Your task to perform on an android device: turn off airplane mode Image 0: 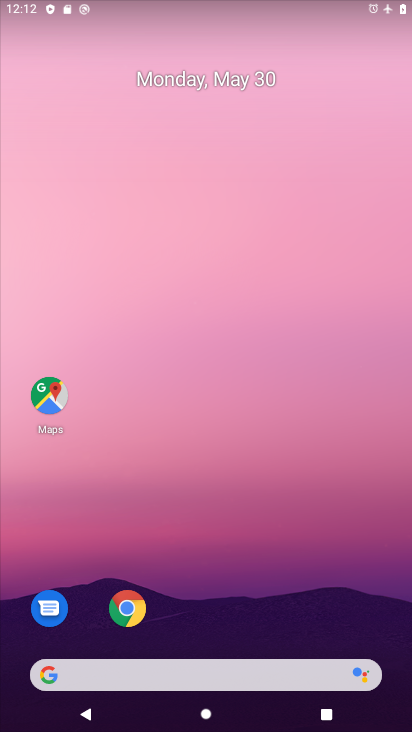
Step 0: drag from (187, 655) to (226, 2)
Your task to perform on an android device: turn off airplane mode Image 1: 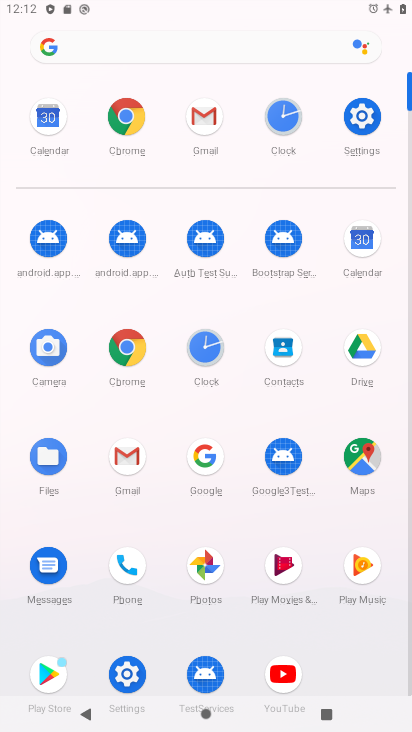
Step 1: click (124, 663)
Your task to perform on an android device: turn off airplane mode Image 2: 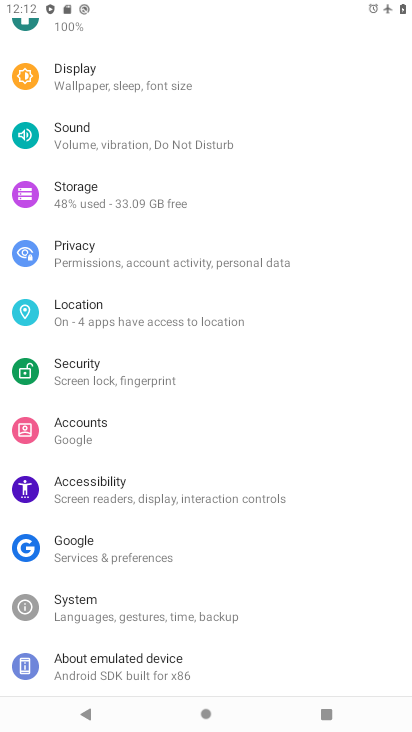
Step 2: drag from (51, 126) to (53, 536)
Your task to perform on an android device: turn off airplane mode Image 3: 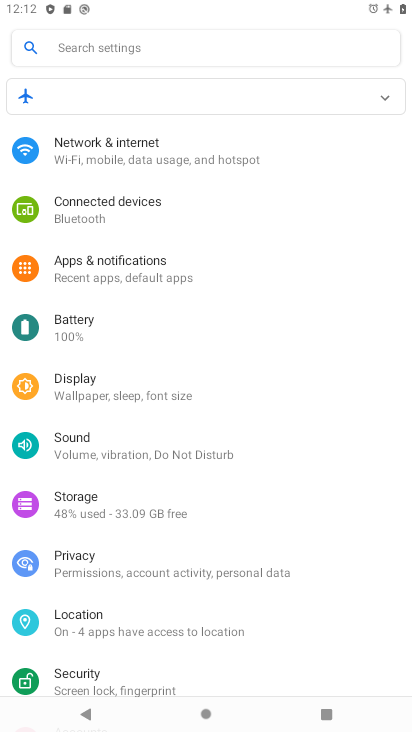
Step 3: click (146, 156)
Your task to perform on an android device: turn off airplane mode Image 4: 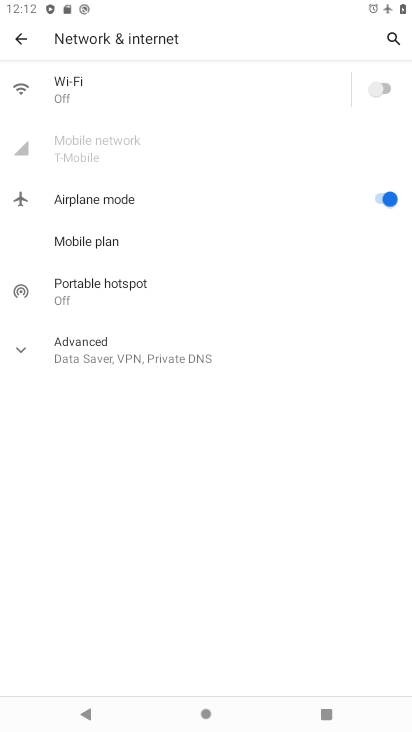
Step 4: click (375, 203)
Your task to perform on an android device: turn off airplane mode Image 5: 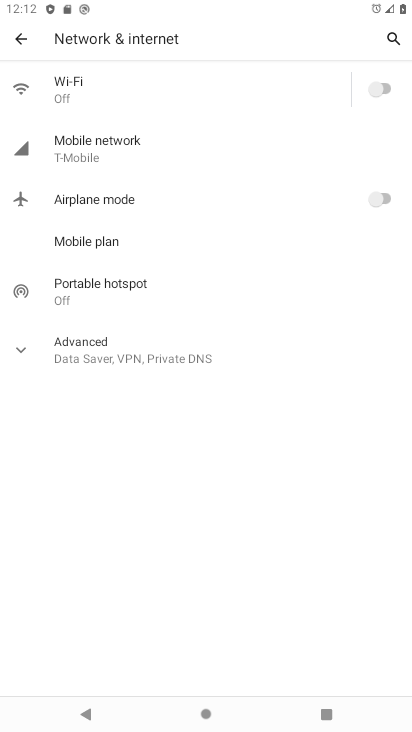
Step 5: task complete